Your task to perform on an android device: toggle sleep mode Image 0: 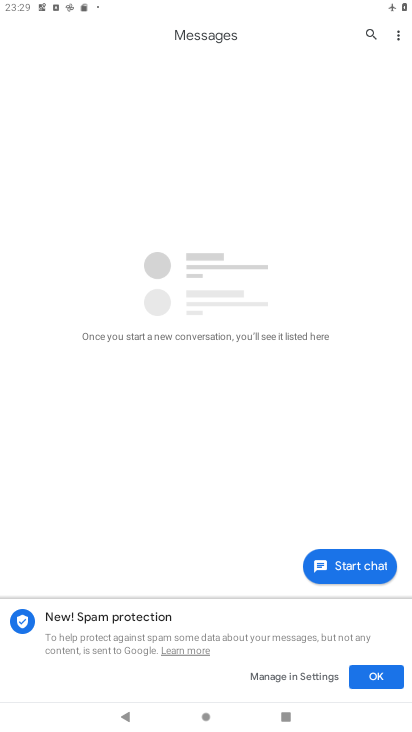
Step 0: press home button
Your task to perform on an android device: toggle sleep mode Image 1: 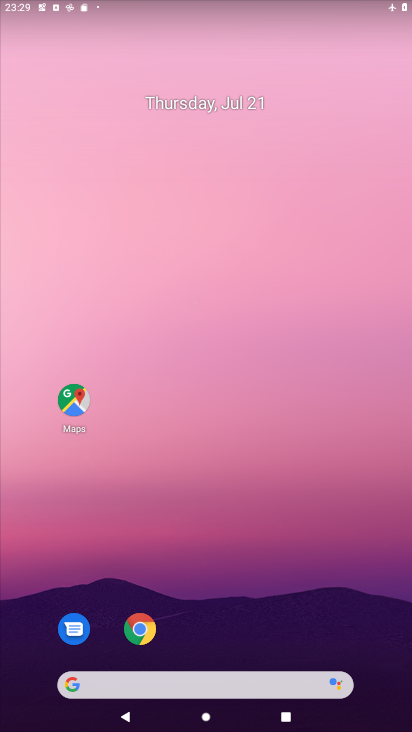
Step 1: drag from (227, 569) to (233, 130)
Your task to perform on an android device: toggle sleep mode Image 2: 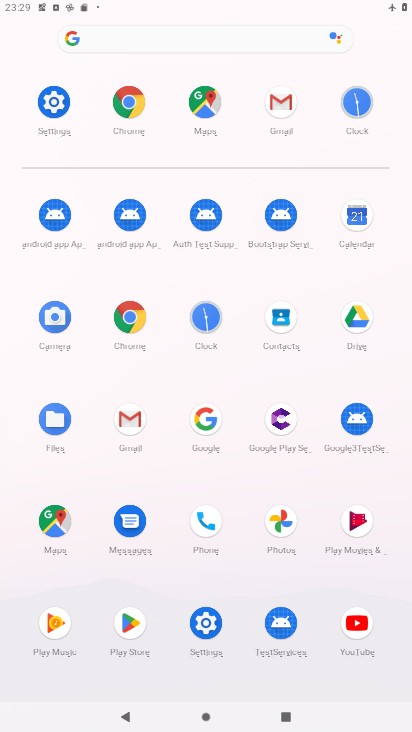
Step 2: click (49, 110)
Your task to perform on an android device: toggle sleep mode Image 3: 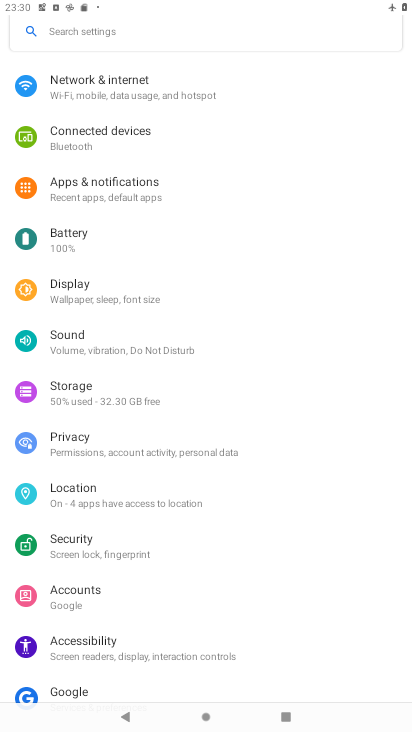
Step 3: task complete